Your task to perform on an android device: star an email in the gmail app Image 0: 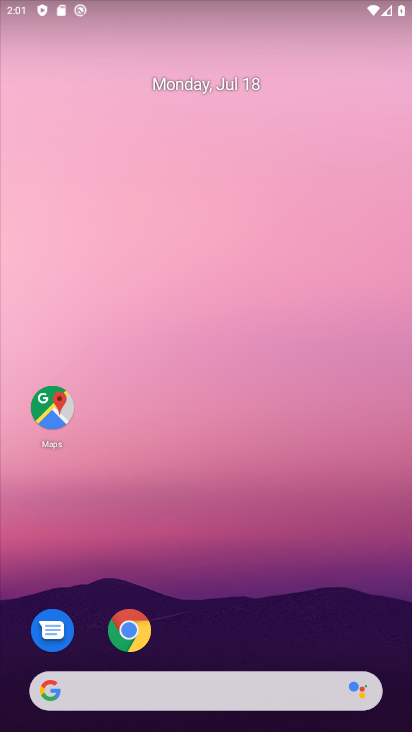
Step 0: click (367, 154)
Your task to perform on an android device: star an email in the gmail app Image 1: 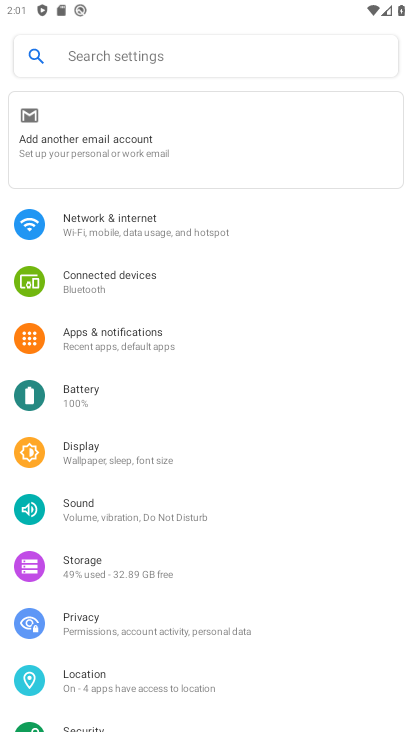
Step 1: press home button
Your task to perform on an android device: star an email in the gmail app Image 2: 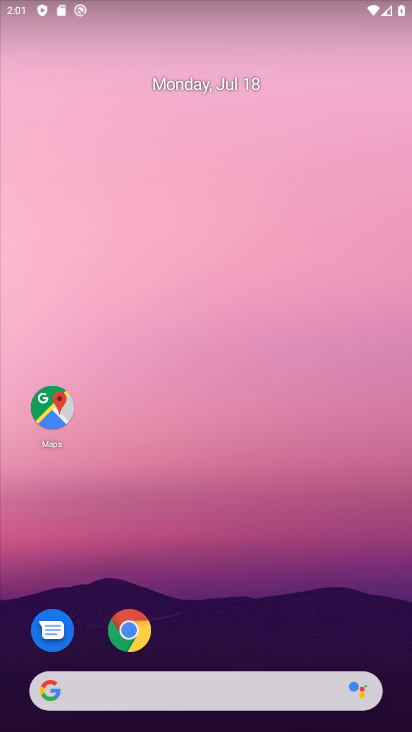
Step 2: drag from (382, 627) to (299, 150)
Your task to perform on an android device: star an email in the gmail app Image 3: 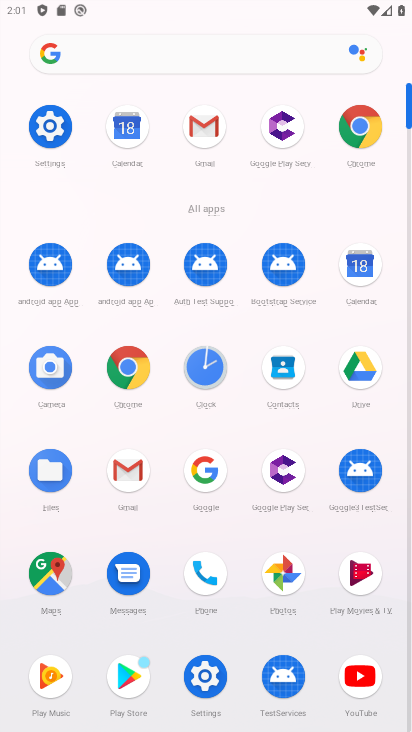
Step 3: click (128, 469)
Your task to perform on an android device: star an email in the gmail app Image 4: 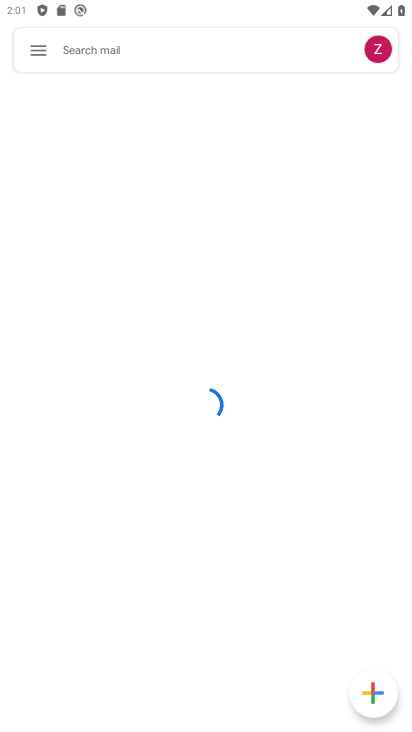
Step 4: click (36, 48)
Your task to perform on an android device: star an email in the gmail app Image 5: 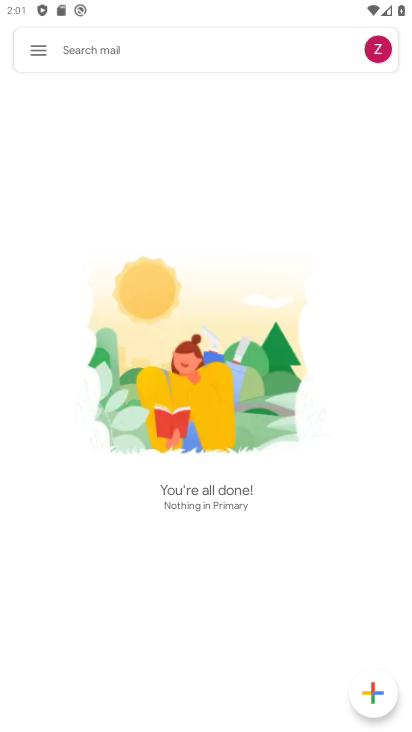
Step 5: click (36, 52)
Your task to perform on an android device: star an email in the gmail app Image 6: 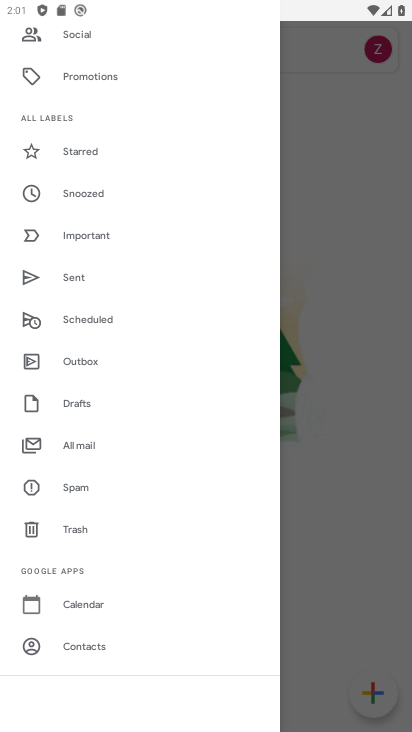
Step 6: click (87, 444)
Your task to perform on an android device: star an email in the gmail app Image 7: 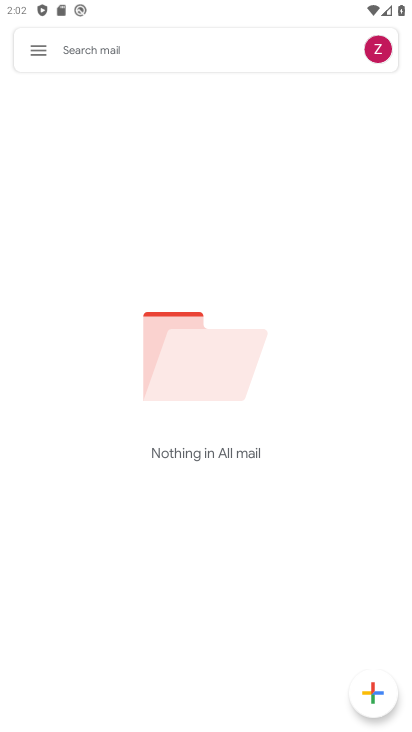
Step 7: task complete